Your task to perform on an android device: Go to Yahoo.com Image 0: 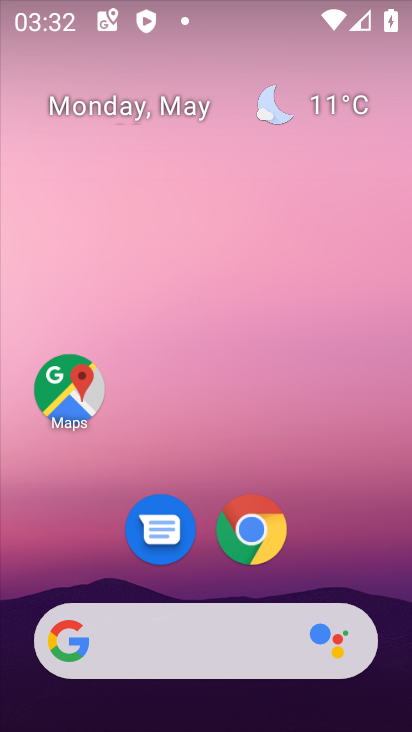
Step 0: click (247, 530)
Your task to perform on an android device: Go to Yahoo.com Image 1: 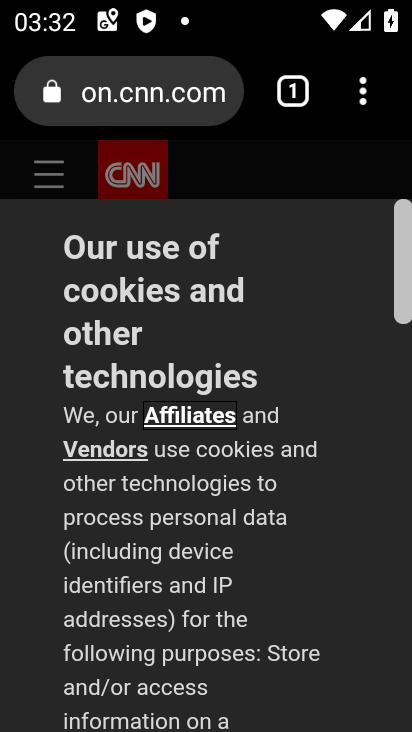
Step 1: click (163, 106)
Your task to perform on an android device: Go to Yahoo.com Image 2: 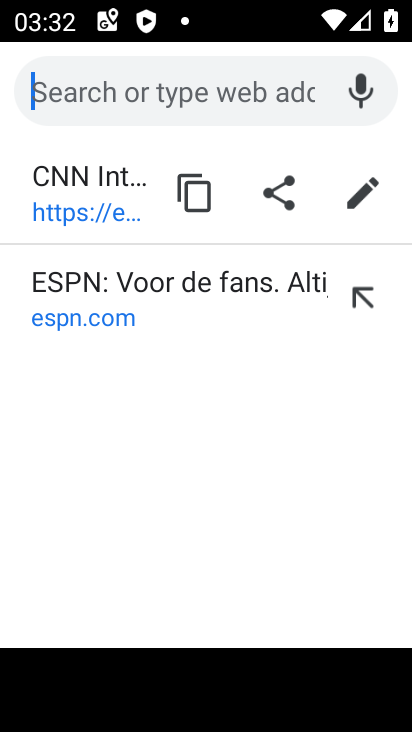
Step 2: type "yahoo.com"
Your task to perform on an android device: Go to Yahoo.com Image 3: 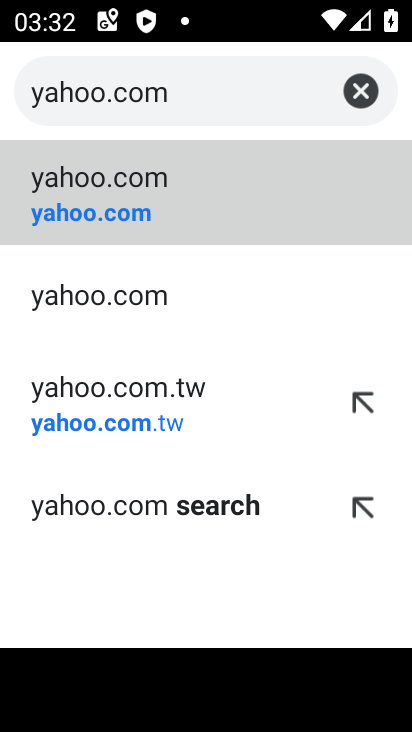
Step 3: click (77, 194)
Your task to perform on an android device: Go to Yahoo.com Image 4: 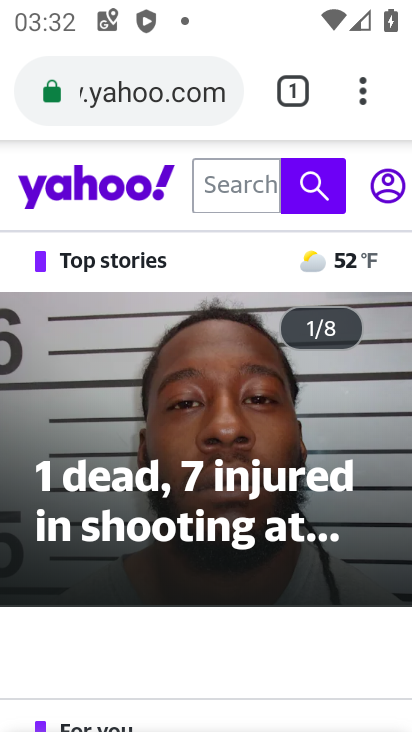
Step 4: task complete